Your task to perform on an android device: Go to wifi settings Image 0: 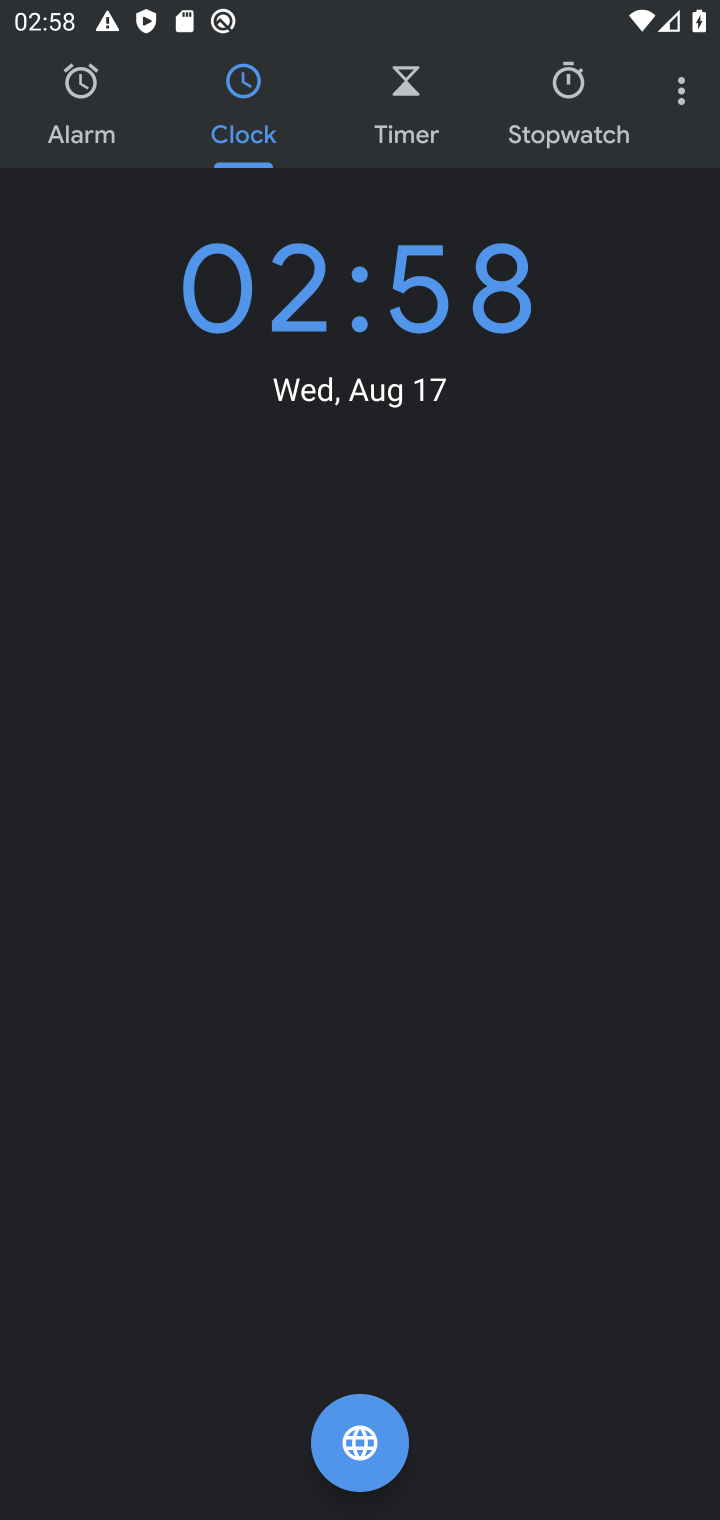
Step 0: press home button
Your task to perform on an android device: Go to wifi settings Image 1: 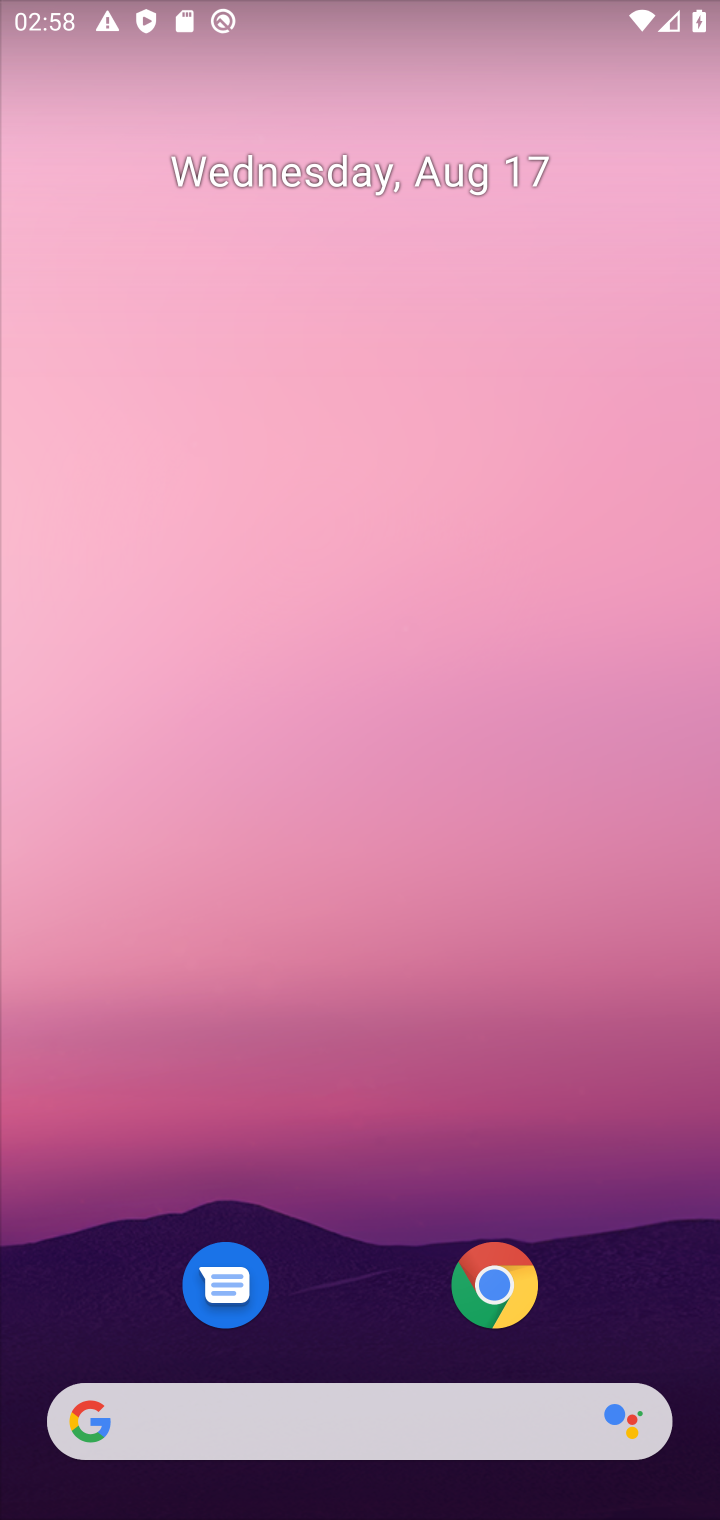
Step 1: drag from (344, 1135) to (596, 7)
Your task to perform on an android device: Go to wifi settings Image 2: 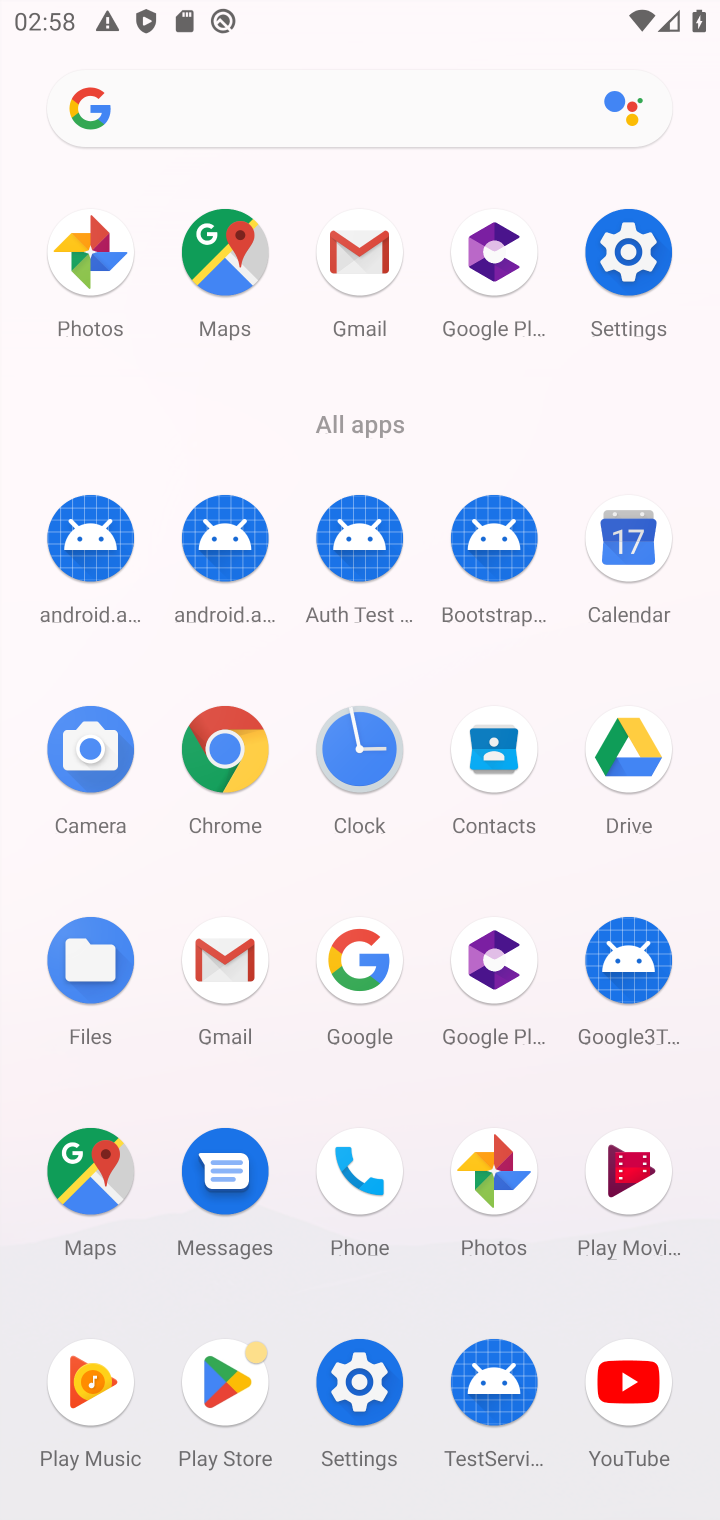
Step 2: click (349, 1402)
Your task to perform on an android device: Go to wifi settings Image 3: 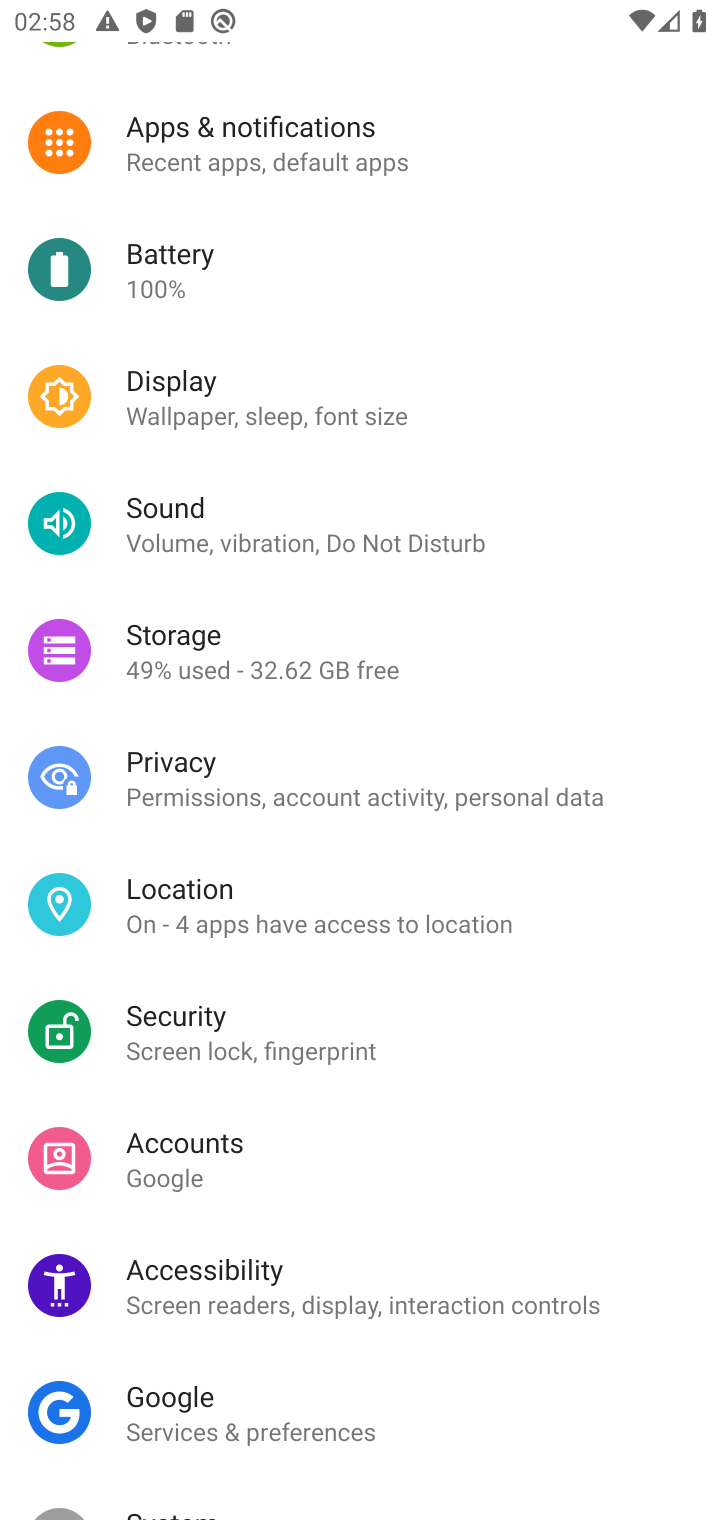
Step 3: drag from (481, 233) to (275, 1329)
Your task to perform on an android device: Go to wifi settings Image 4: 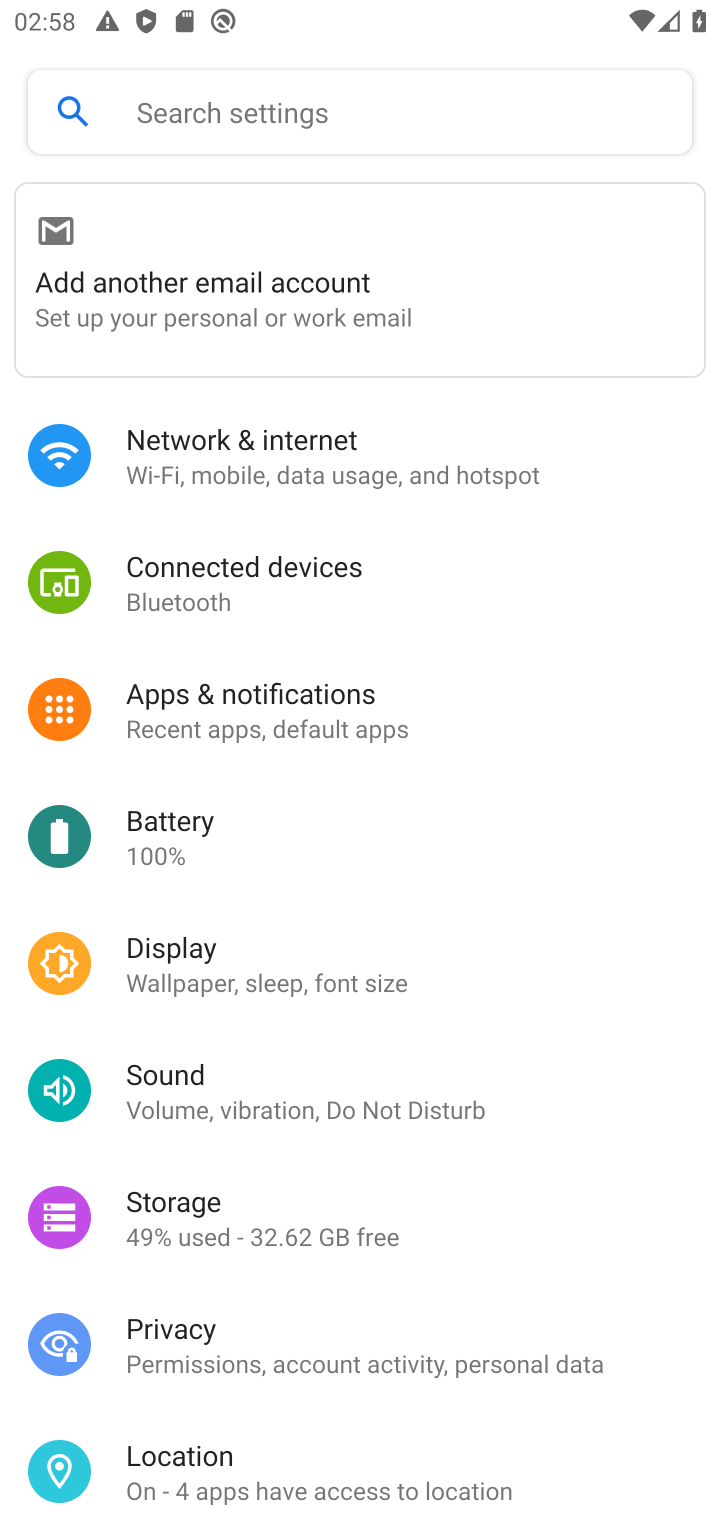
Step 4: drag from (293, 303) to (304, 812)
Your task to perform on an android device: Go to wifi settings Image 5: 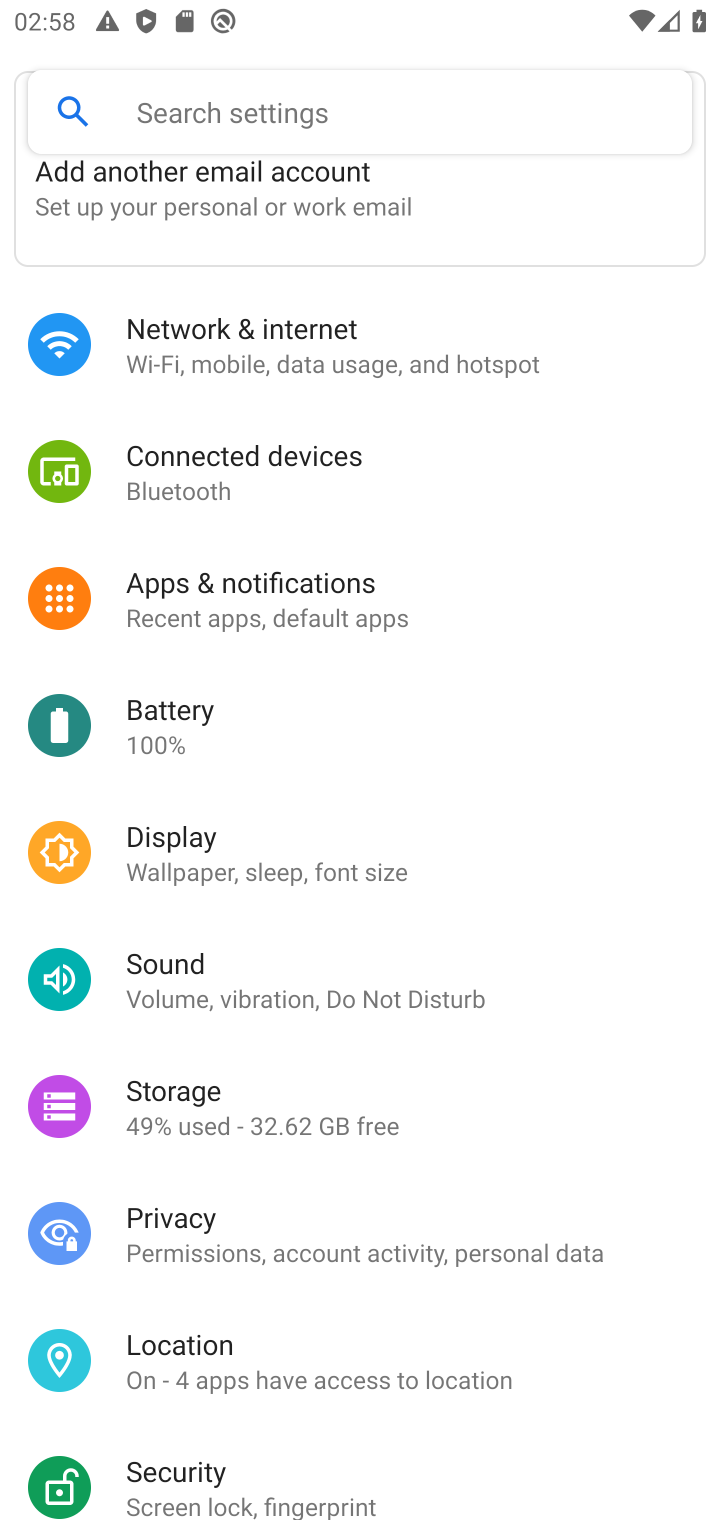
Step 5: click (315, 425)
Your task to perform on an android device: Go to wifi settings Image 6: 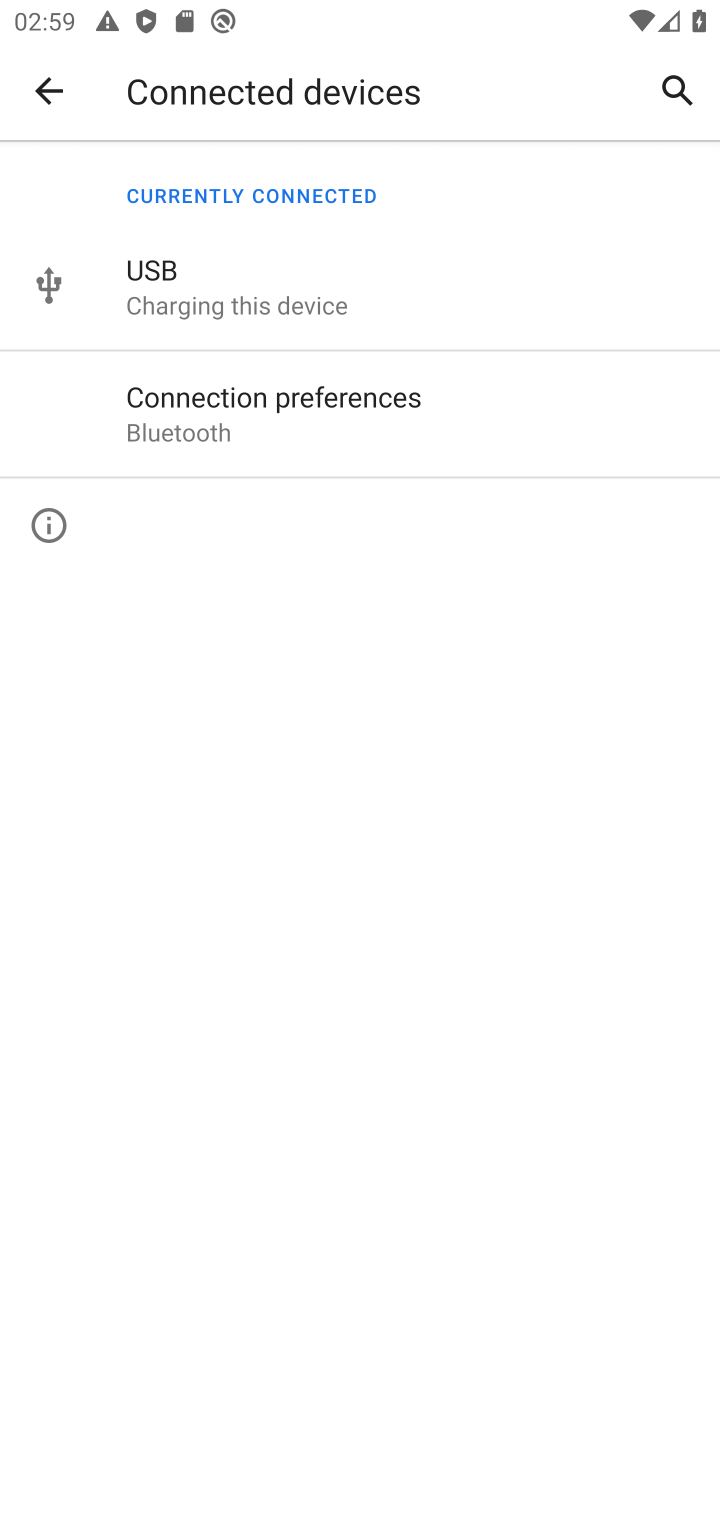
Step 6: click (41, 87)
Your task to perform on an android device: Go to wifi settings Image 7: 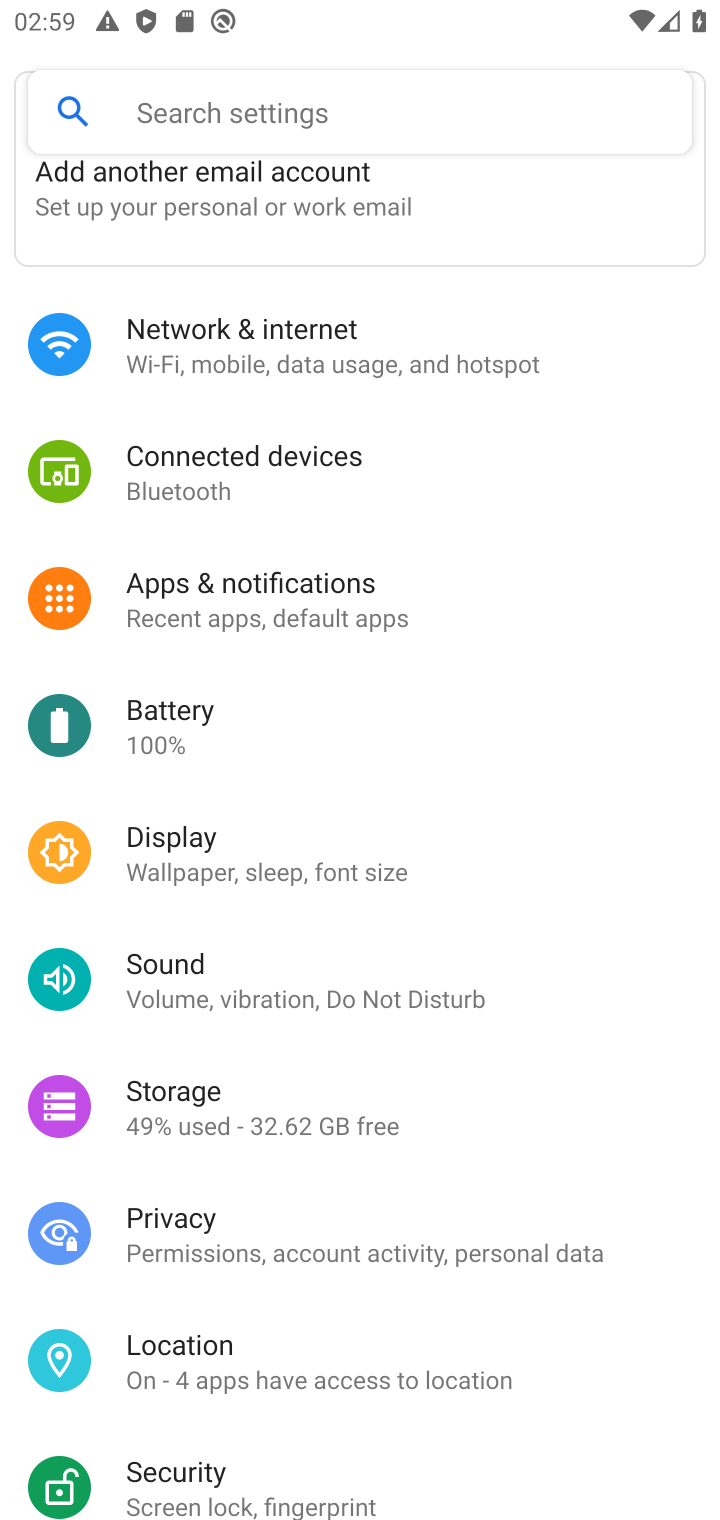
Step 7: click (272, 345)
Your task to perform on an android device: Go to wifi settings Image 8: 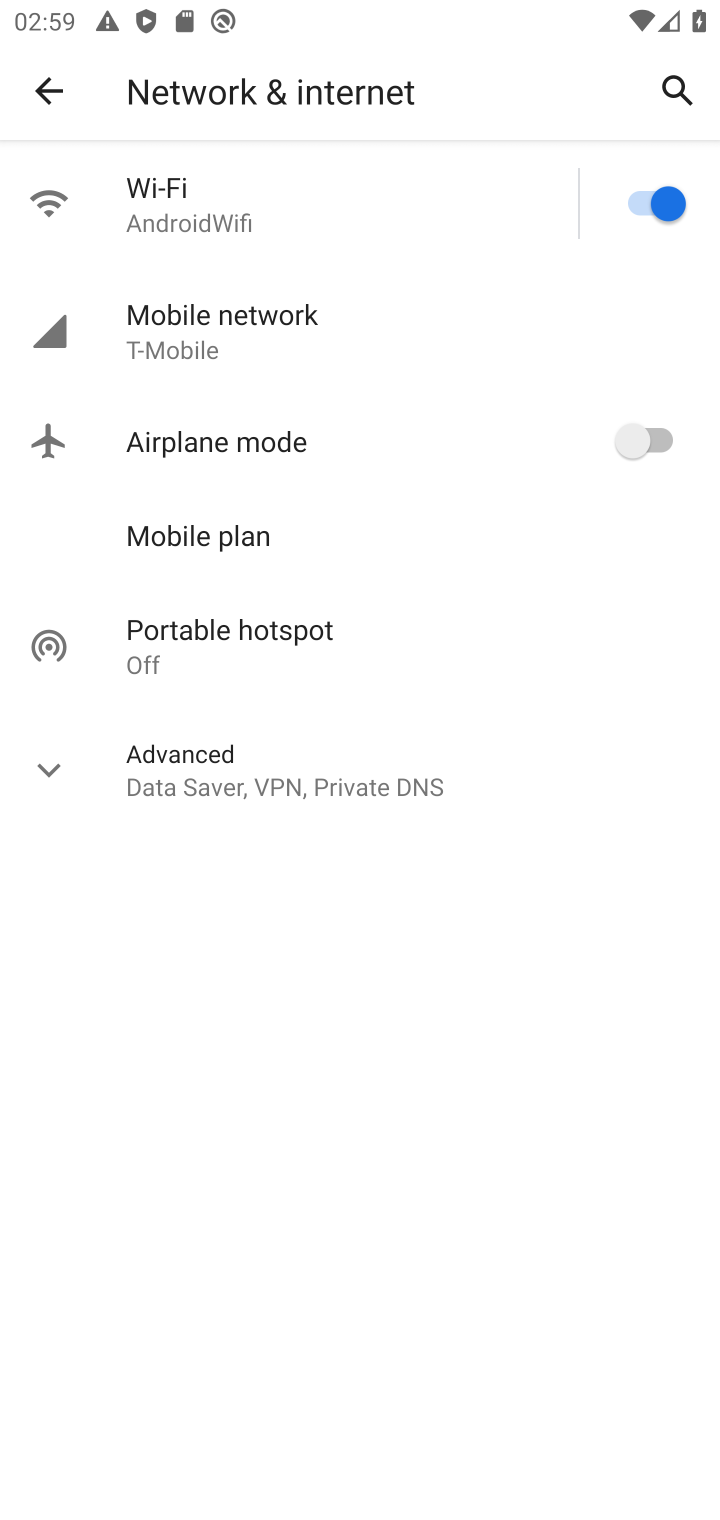
Step 8: click (185, 196)
Your task to perform on an android device: Go to wifi settings Image 9: 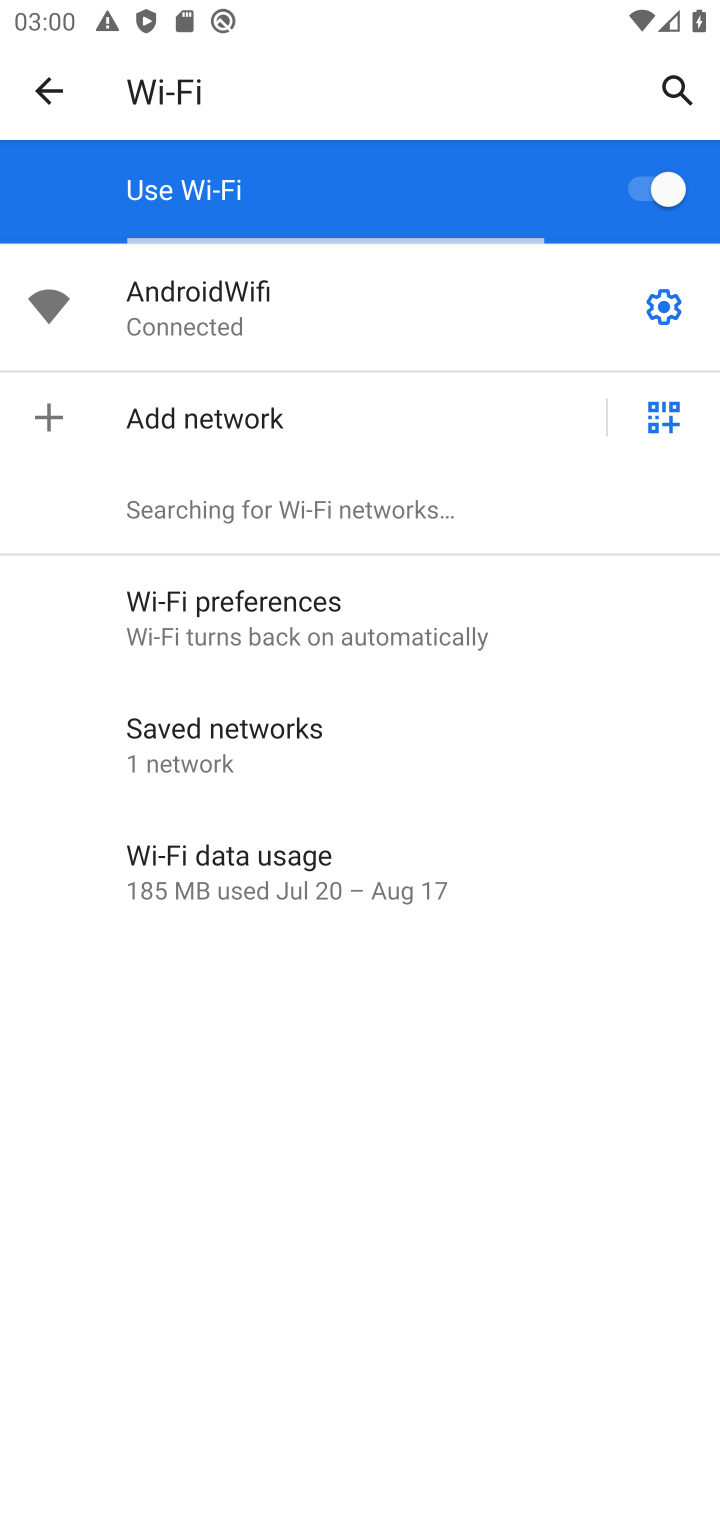
Step 9: task complete